Your task to perform on an android device: set the timer Image 0: 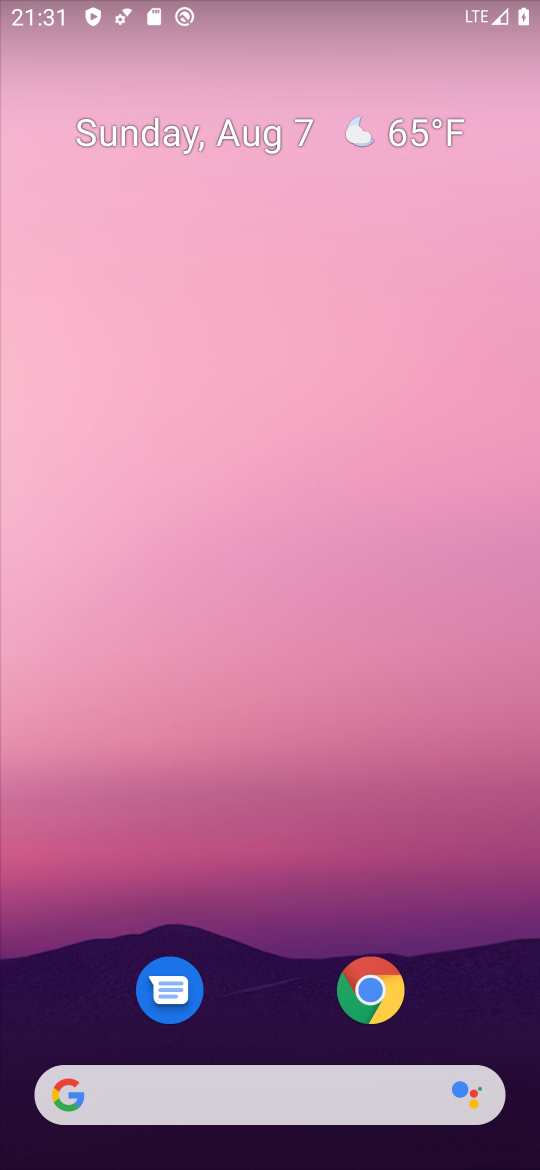
Step 0: drag from (286, 1004) to (353, 0)
Your task to perform on an android device: set the timer Image 1: 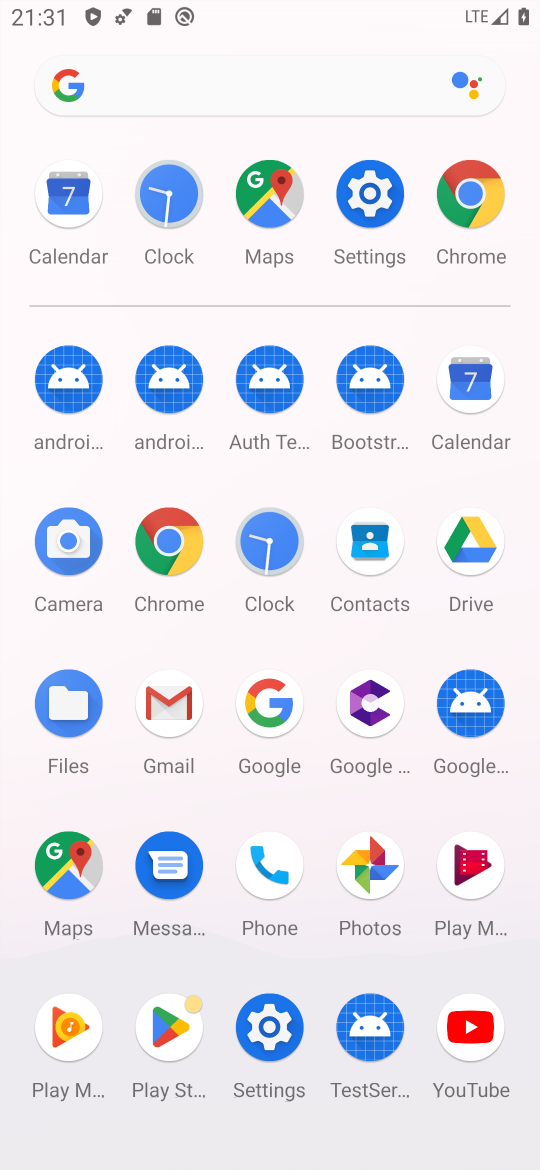
Step 1: click (170, 205)
Your task to perform on an android device: set the timer Image 2: 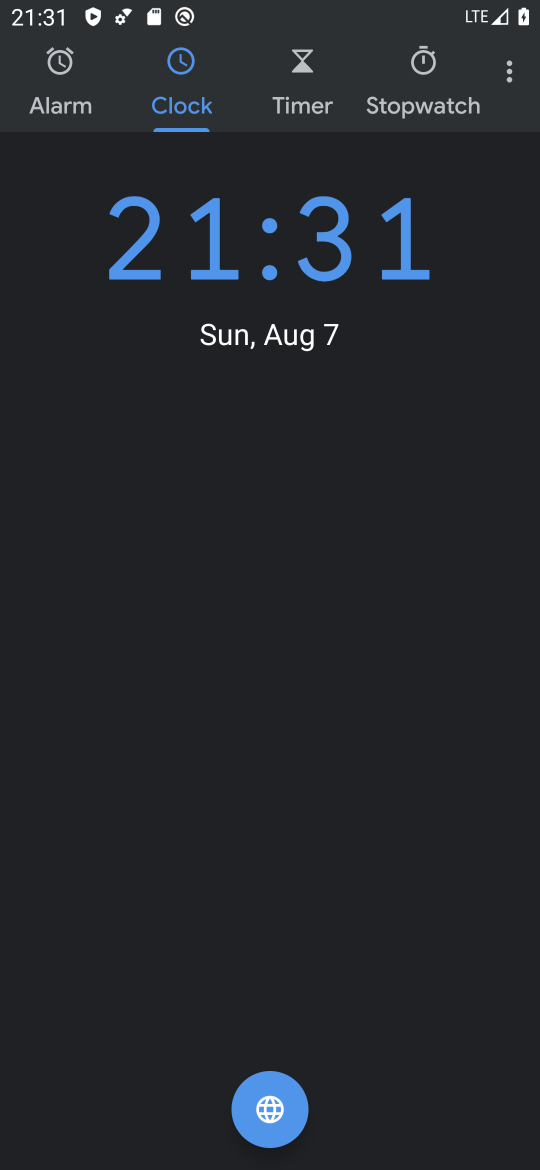
Step 2: click (299, 80)
Your task to perform on an android device: set the timer Image 3: 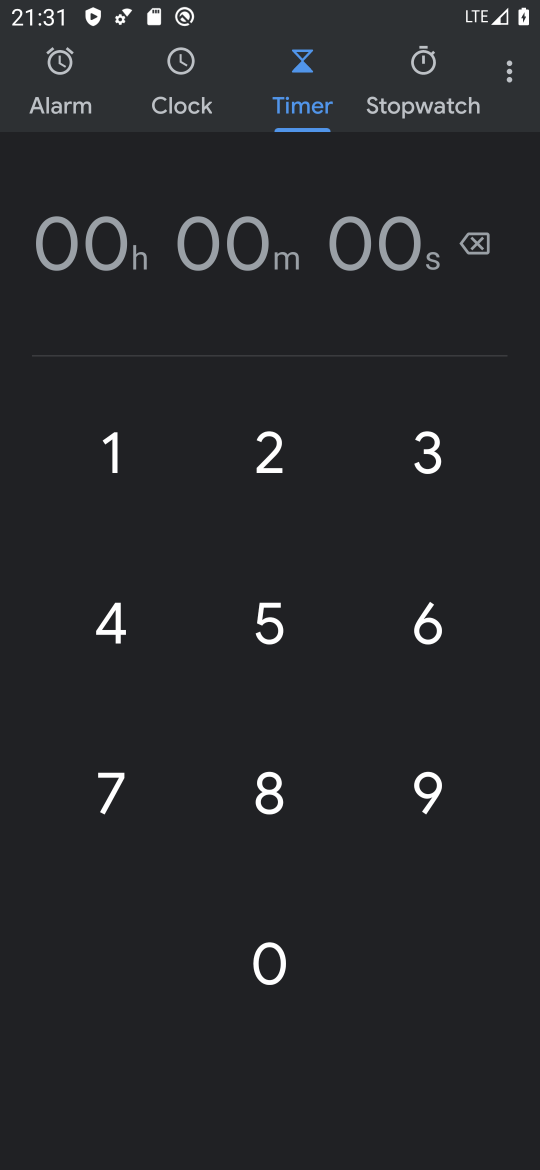
Step 3: task complete